Your task to perform on an android device: turn off javascript in the chrome app Image 0: 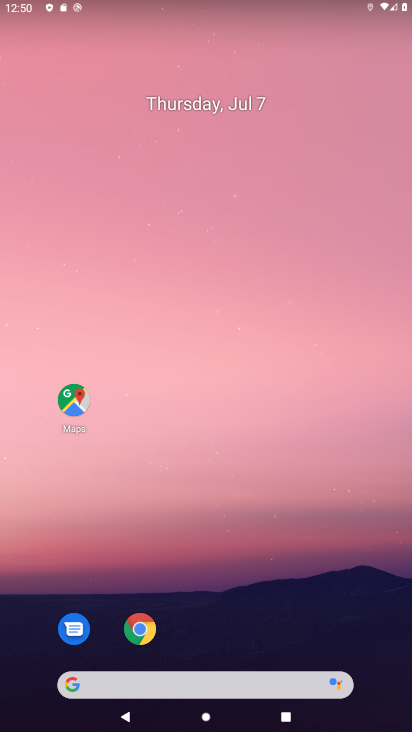
Step 0: drag from (212, 636) to (167, 169)
Your task to perform on an android device: turn off javascript in the chrome app Image 1: 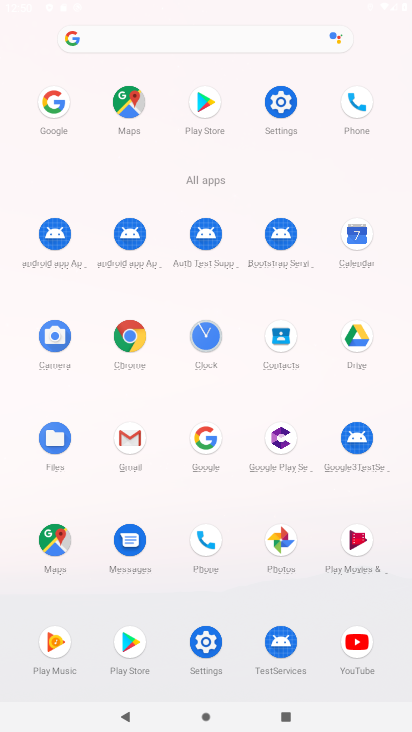
Step 1: click (124, 337)
Your task to perform on an android device: turn off javascript in the chrome app Image 2: 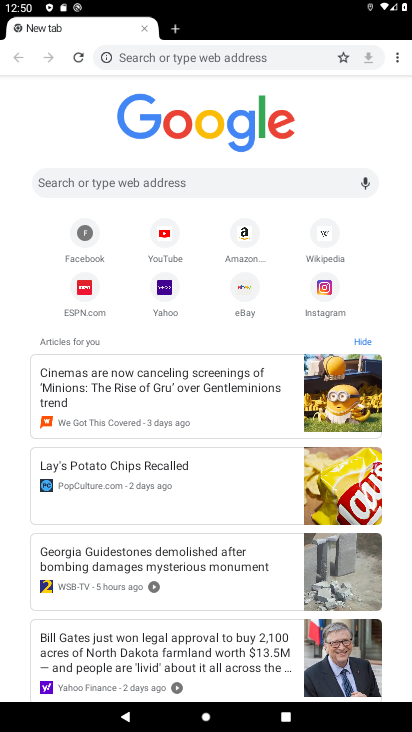
Step 2: click (393, 60)
Your task to perform on an android device: turn off javascript in the chrome app Image 3: 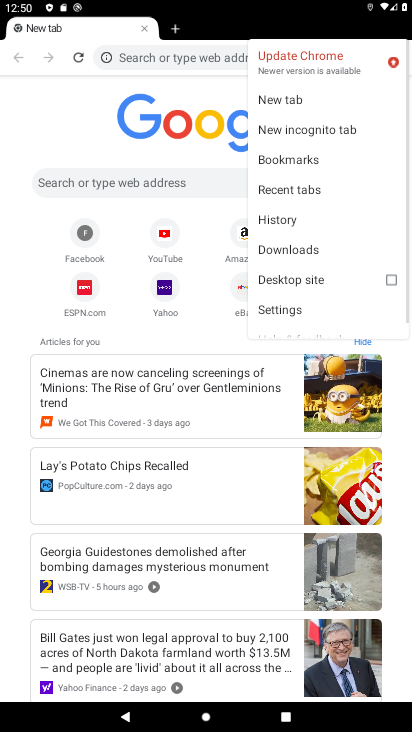
Step 3: click (290, 310)
Your task to perform on an android device: turn off javascript in the chrome app Image 4: 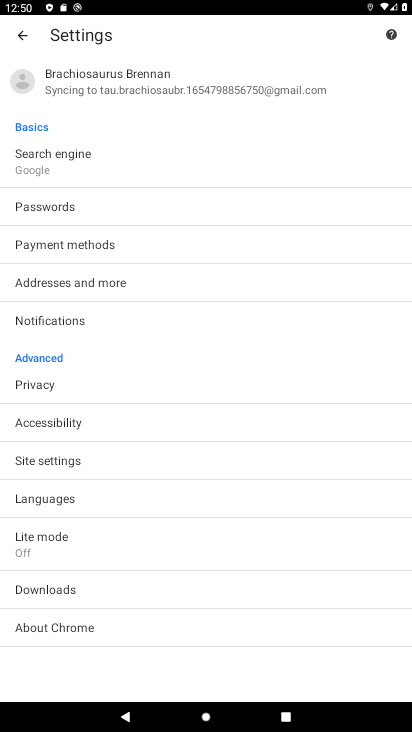
Step 4: click (25, 468)
Your task to perform on an android device: turn off javascript in the chrome app Image 5: 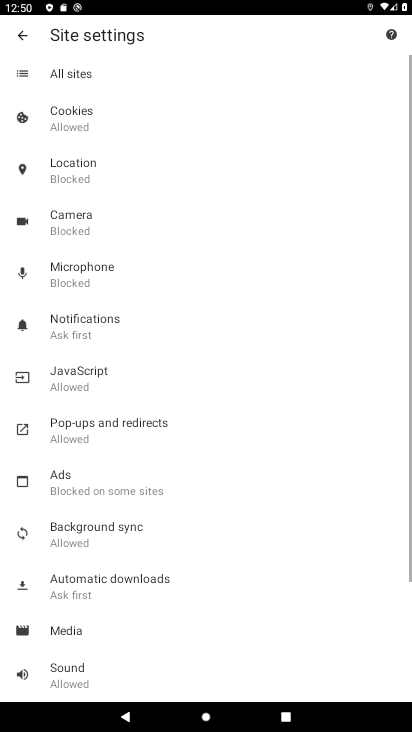
Step 5: click (138, 373)
Your task to perform on an android device: turn off javascript in the chrome app Image 6: 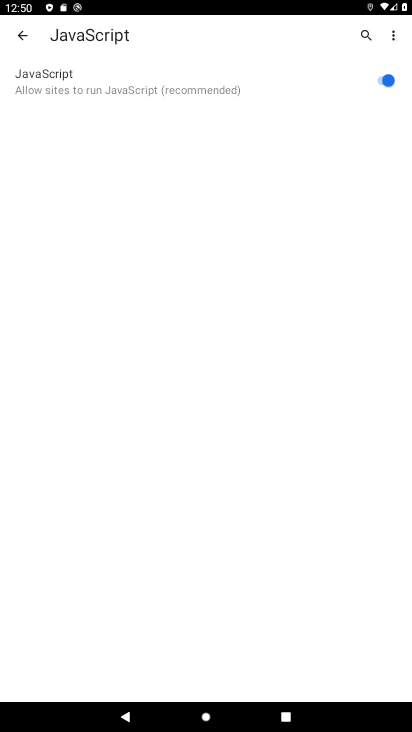
Step 6: click (382, 81)
Your task to perform on an android device: turn off javascript in the chrome app Image 7: 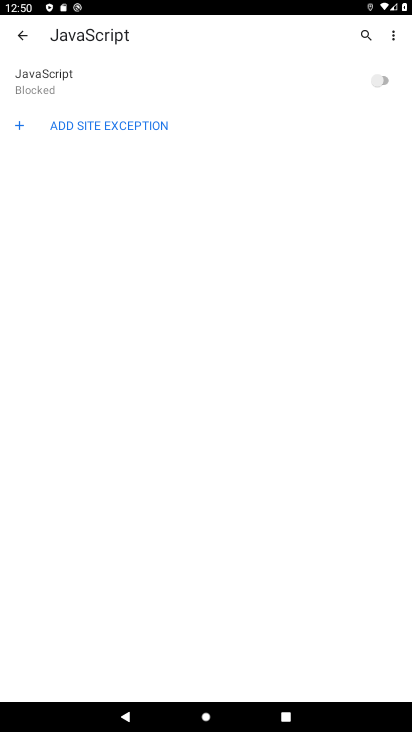
Step 7: task complete